Your task to perform on an android device: Open Android settings Image 0: 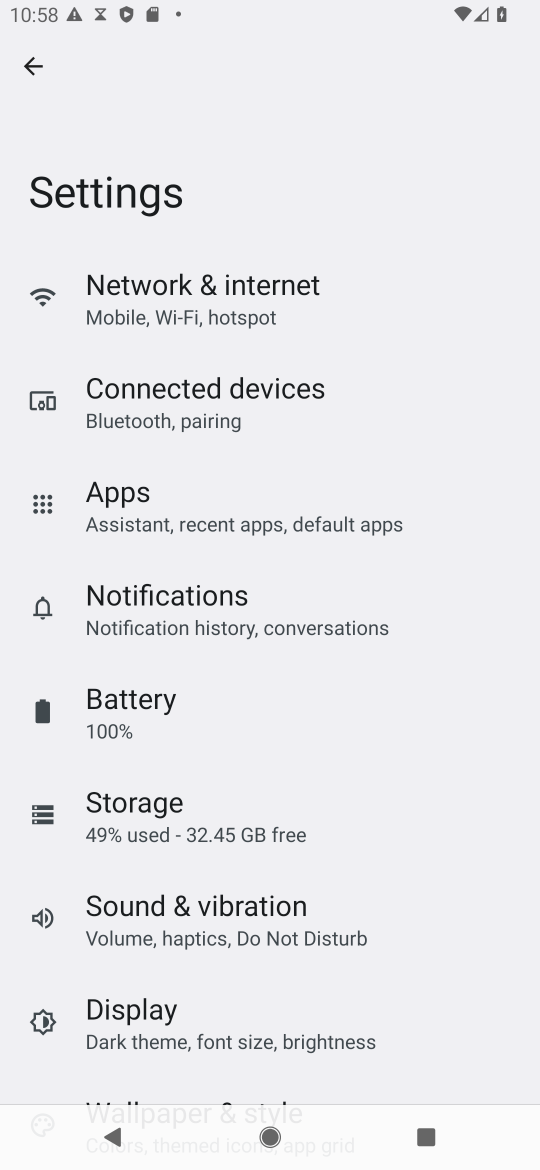
Step 0: drag from (256, 1003) to (370, 17)
Your task to perform on an android device: Open Android settings Image 1: 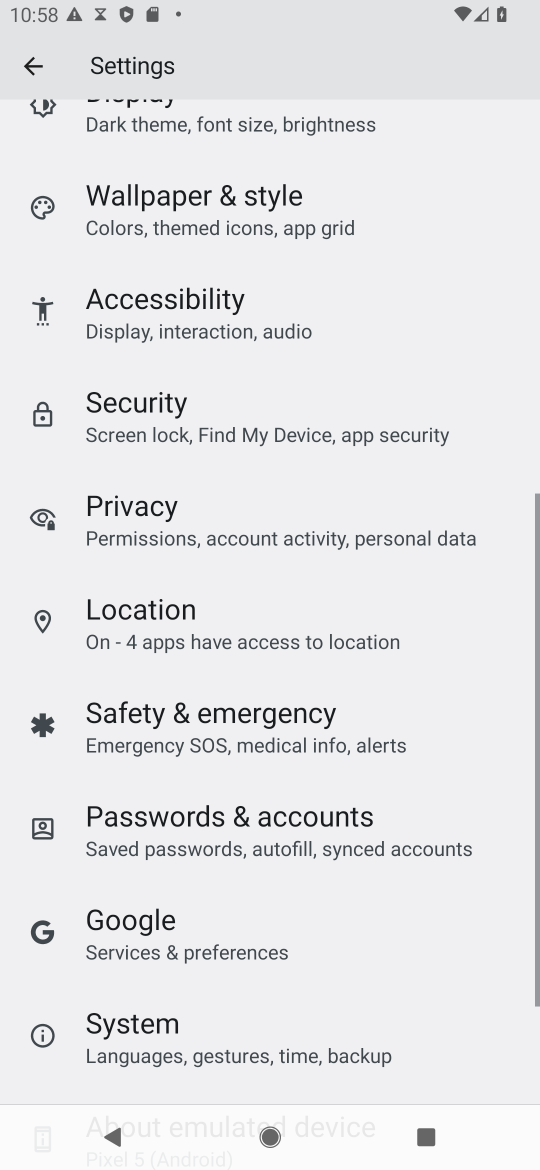
Step 1: drag from (244, 796) to (318, 9)
Your task to perform on an android device: Open Android settings Image 2: 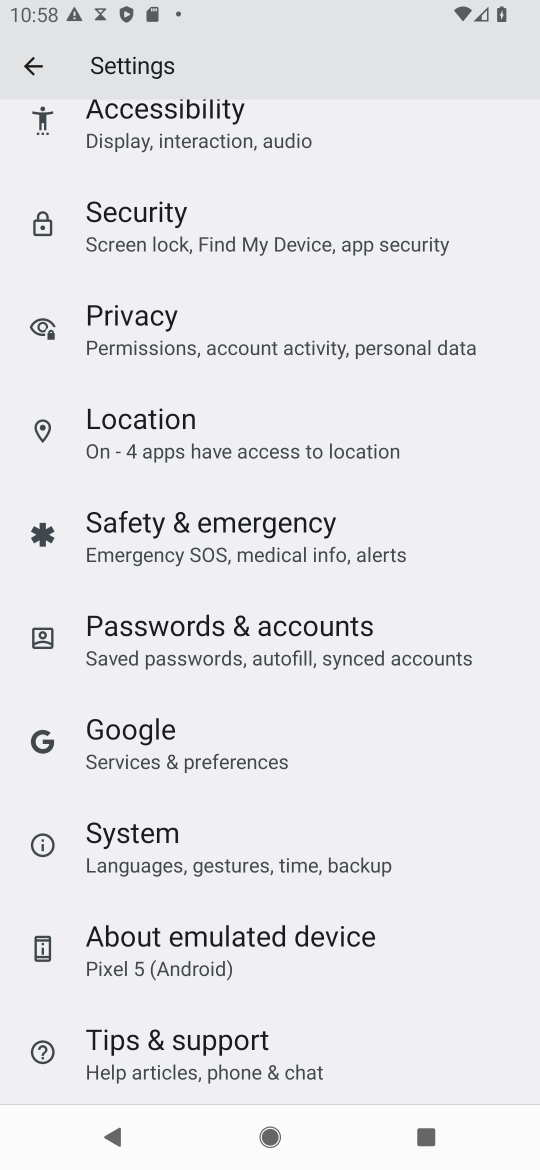
Step 2: click (219, 963)
Your task to perform on an android device: Open Android settings Image 3: 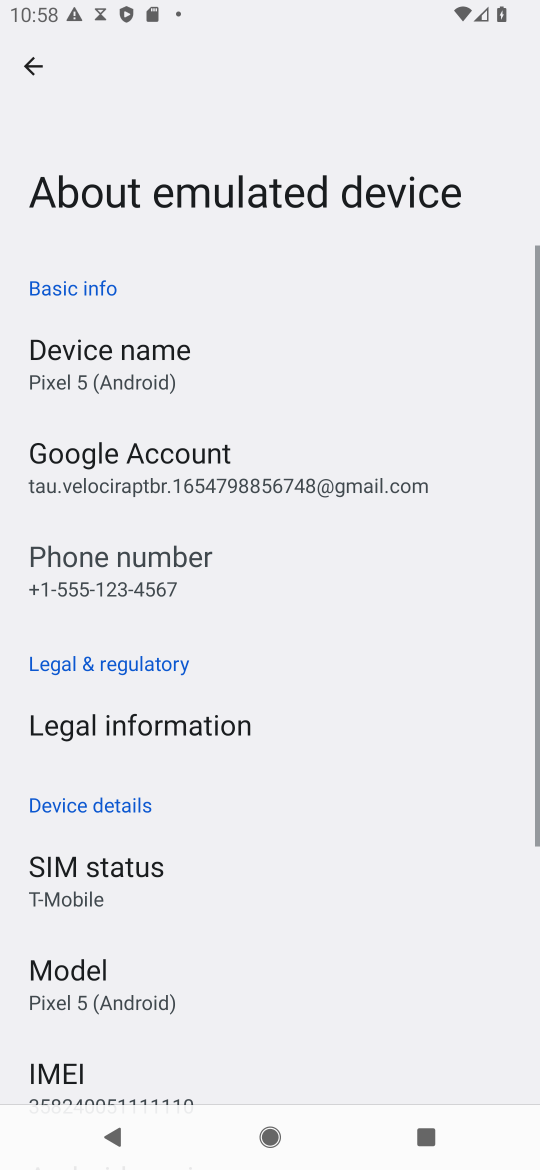
Step 3: task complete